Your task to perform on an android device: Open the map Image 0: 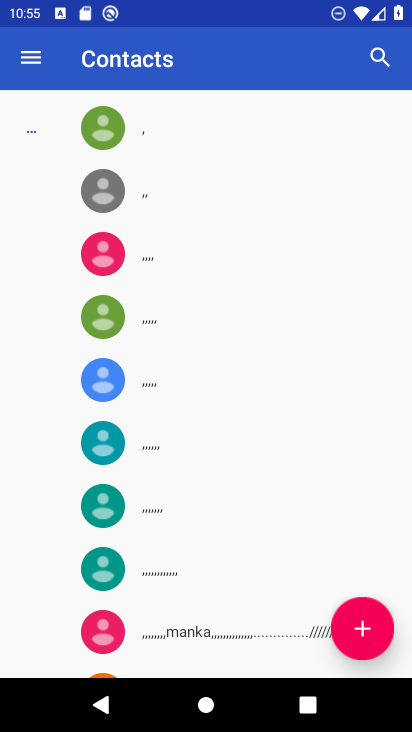
Step 0: press home button
Your task to perform on an android device: Open the map Image 1: 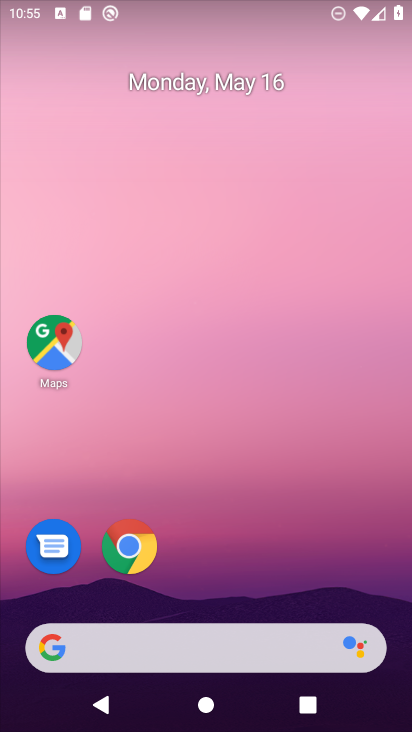
Step 1: click (47, 351)
Your task to perform on an android device: Open the map Image 2: 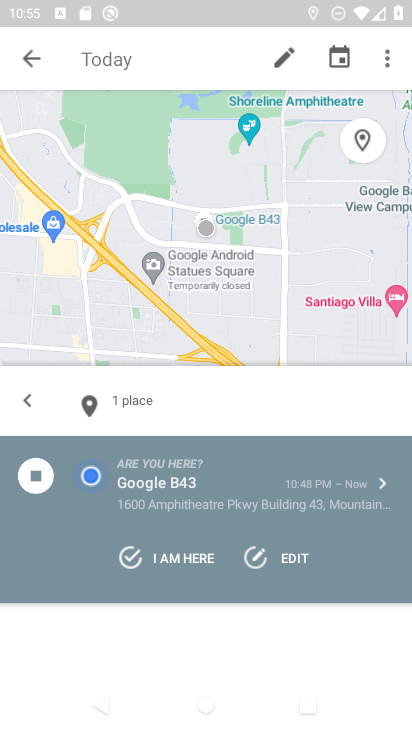
Step 2: task complete